Your task to perform on an android device: Open Google Image 0: 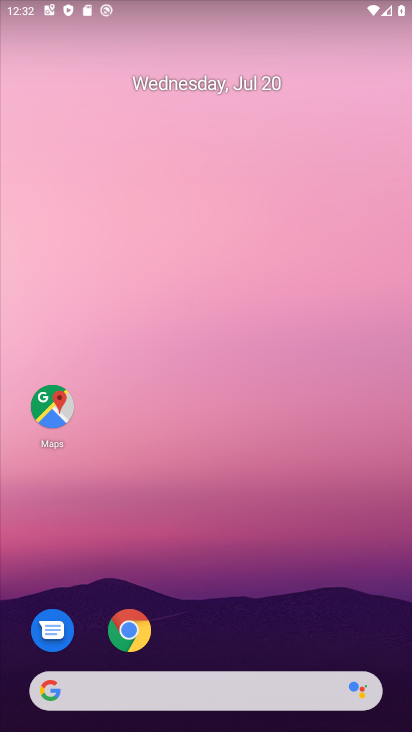
Step 0: press home button
Your task to perform on an android device: Open Google Image 1: 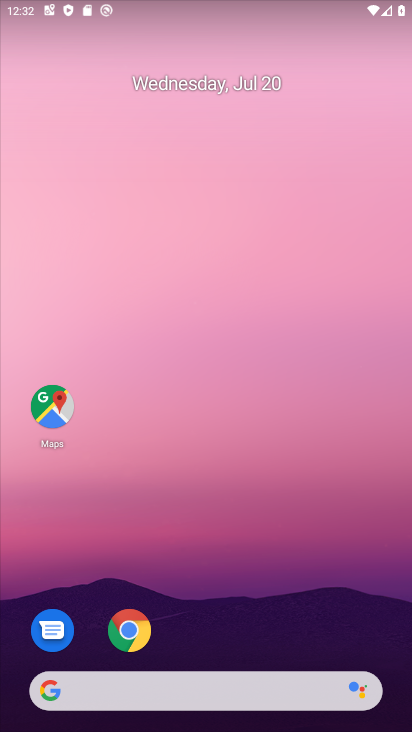
Step 1: click (52, 693)
Your task to perform on an android device: Open Google Image 2: 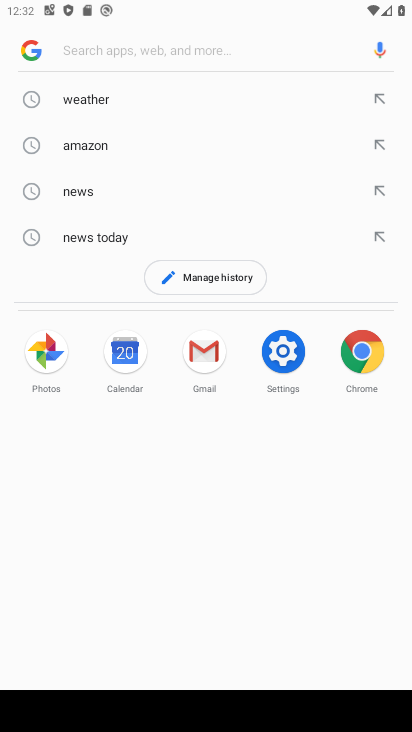
Step 2: click (36, 55)
Your task to perform on an android device: Open Google Image 3: 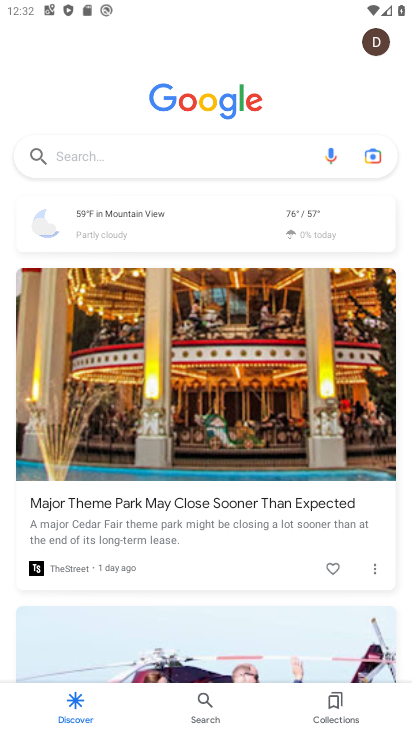
Step 3: task complete